Your task to perform on an android device: turn on the 24-hour format for clock Image 0: 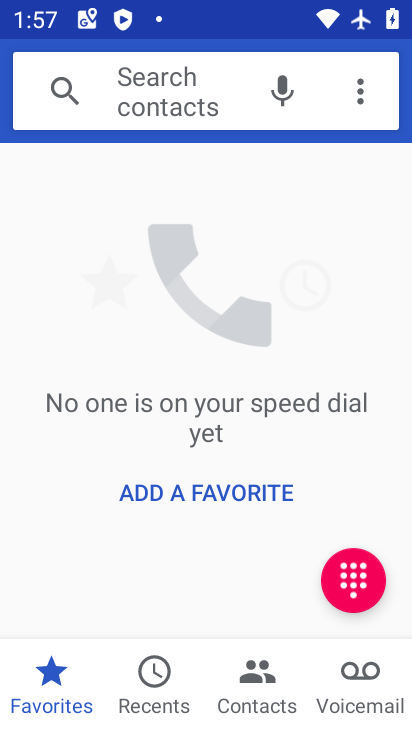
Step 0: press home button
Your task to perform on an android device: turn on the 24-hour format for clock Image 1: 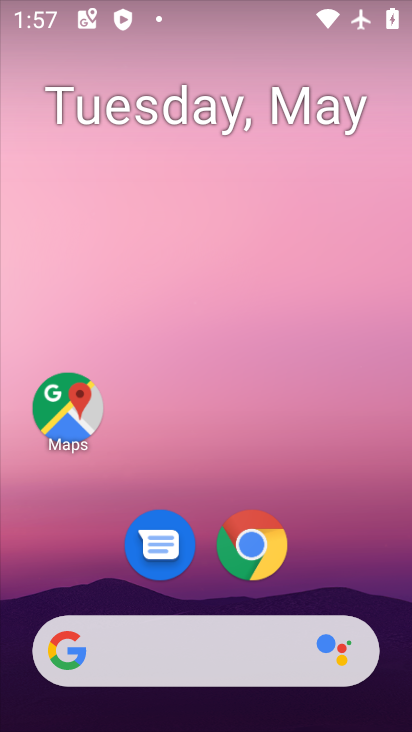
Step 1: drag from (389, 614) to (267, 74)
Your task to perform on an android device: turn on the 24-hour format for clock Image 2: 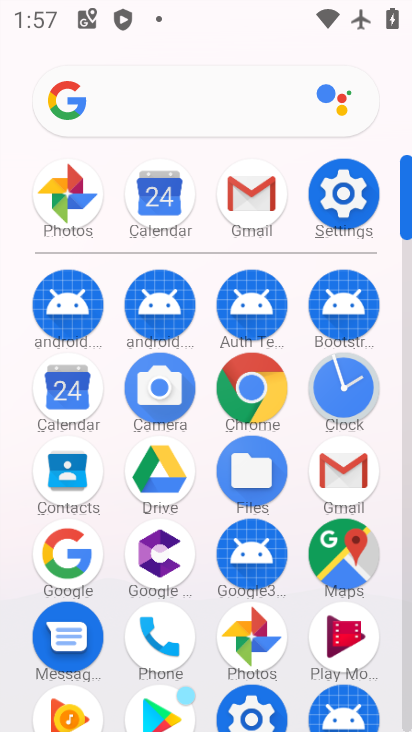
Step 2: click (344, 389)
Your task to perform on an android device: turn on the 24-hour format for clock Image 3: 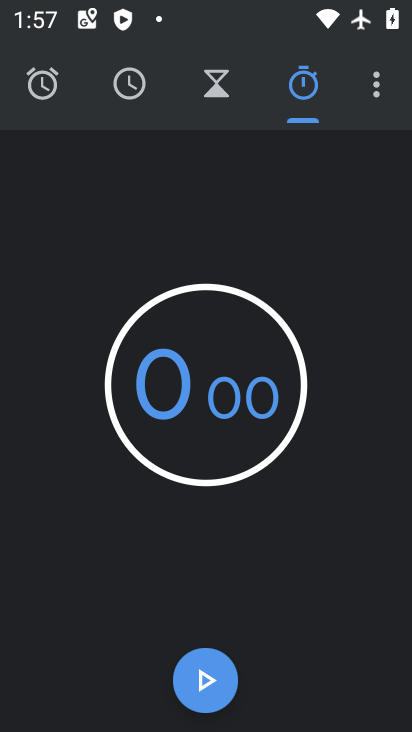
Step 3: click (374, 90)
Your task to perform on an android device: turn on the 24-hour format for clock Image 4: 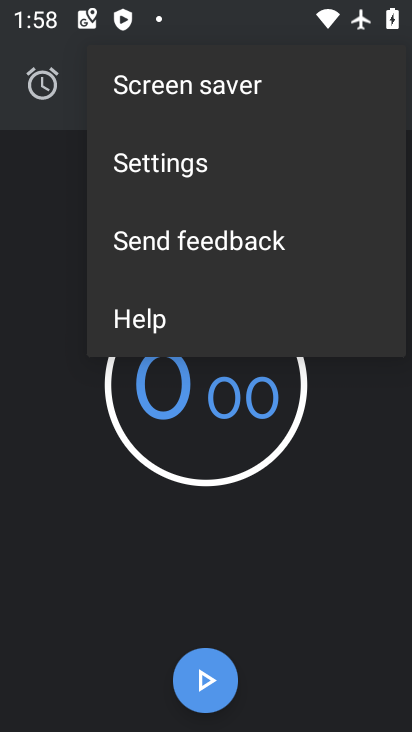
Step 4: click (154, 171)
Your task to perform on an android device: turn on the 24-hour format for clock Image 5: 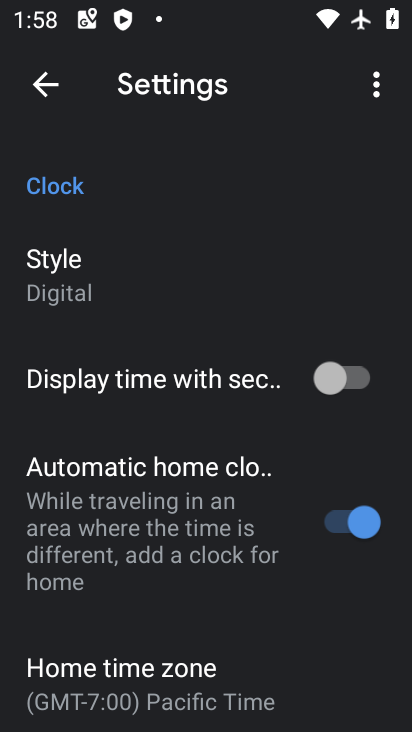
Step 5: drag from (316, 568) to (259, 185)
Your task to perform on an android device: turn on the 24-hour format for clock Image 6: 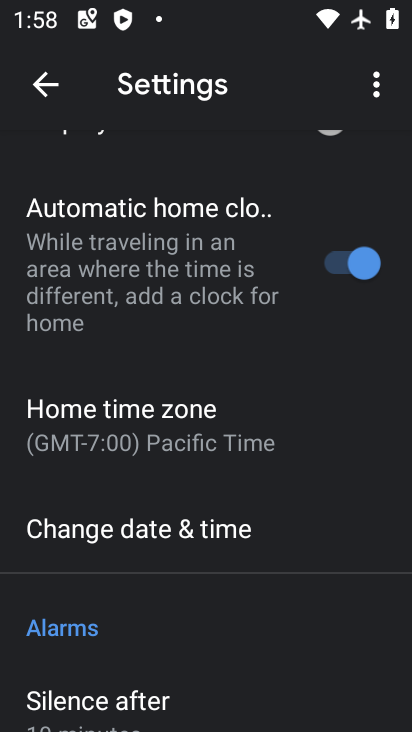
Step 6: click (154, 546)
Your task to perform on an android device: turn on the 24-hour format for clock Image 7: 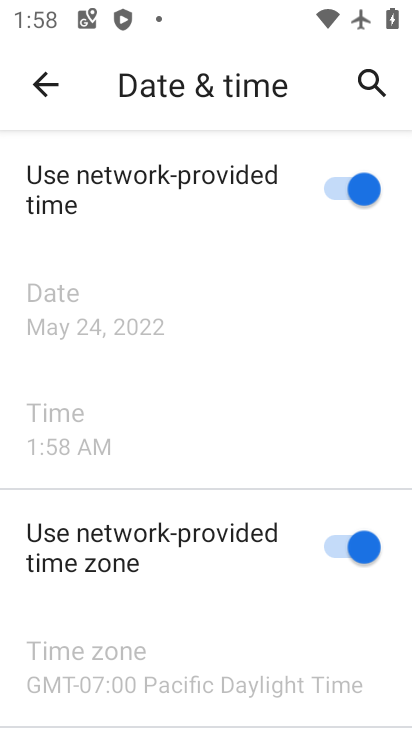
Step 7: drag from (339, 584) to (226, 131)
Your task to perform on an android device: turn on the 24-hour format for clock Image 8: 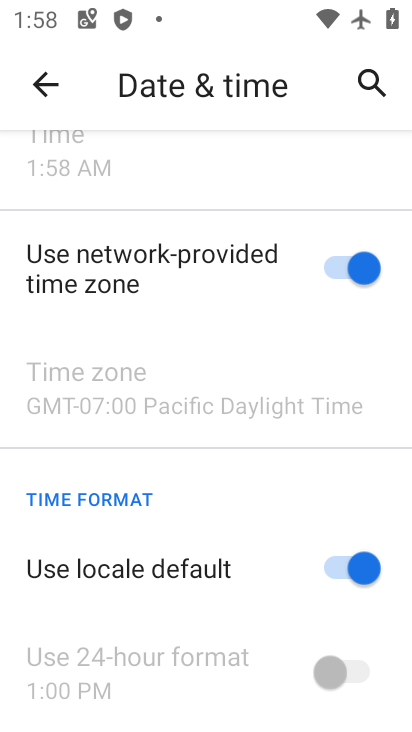
Step 8: click (326, 569)
Your task to perform on an android device: turn on the 24-hour format for clock Image 9: 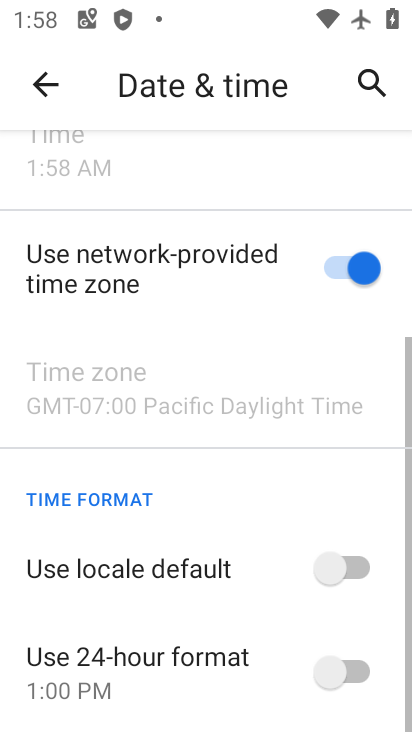
Step 9: click (359, 677)
Your task to perform on an android device: turn on the 24-hour format for clock Image 10: 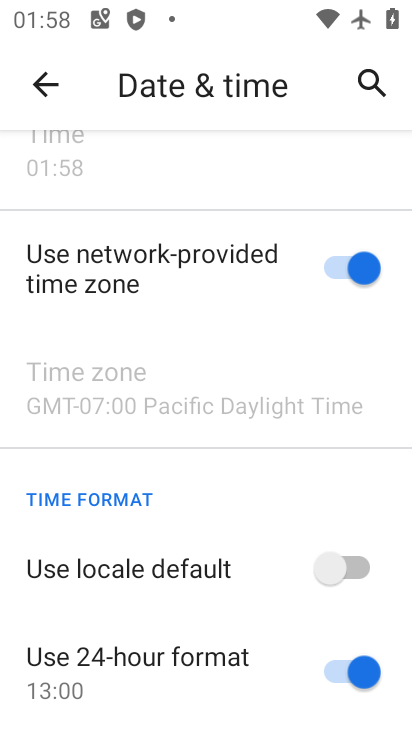
Step 10: task complete